Your task to perform on an android device: find snoozed emails in the gmail app Image 0: 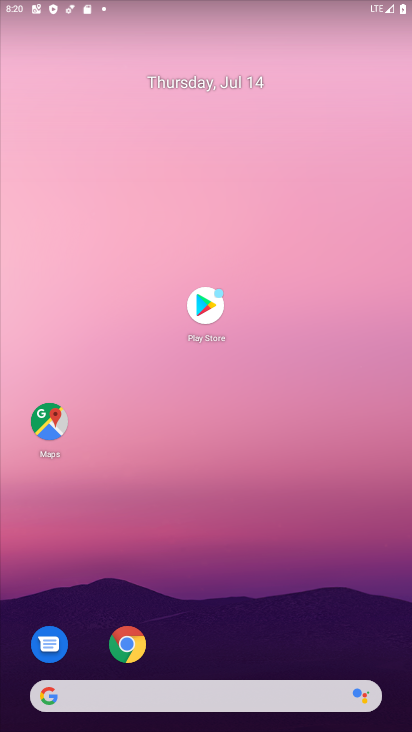
Step 0: click (303, 173)
Your task to perform on an android device: find snoozed emails in the gmail app Image 1: 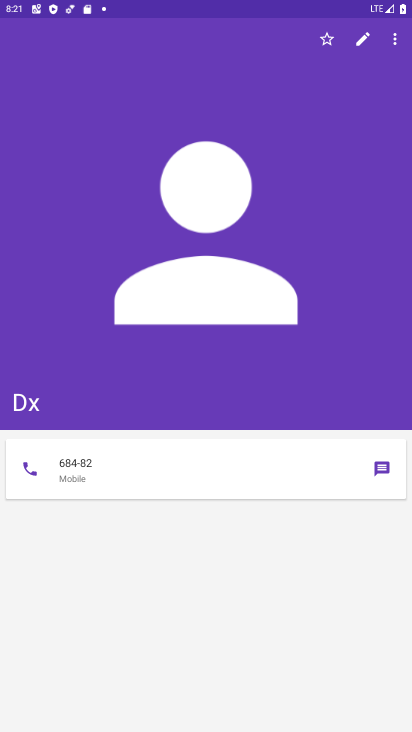
Step 1: press home button
Your task to perform on an android device: find snoozed emails in the gmail app Image 2: 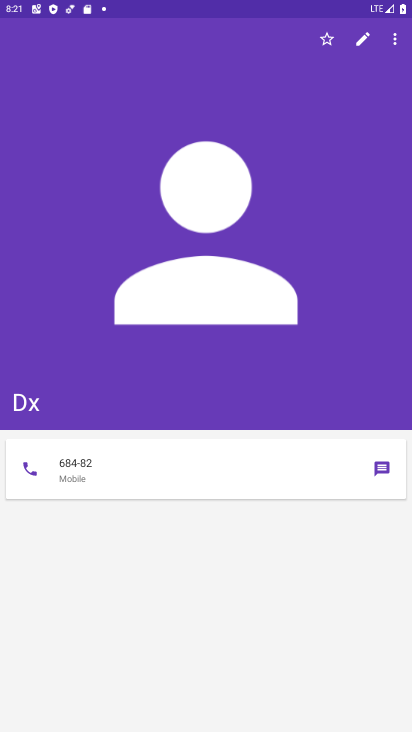
Step 2: press home button
Your task to perform on an android device: find snoozed emails in the gmail app Image 3: 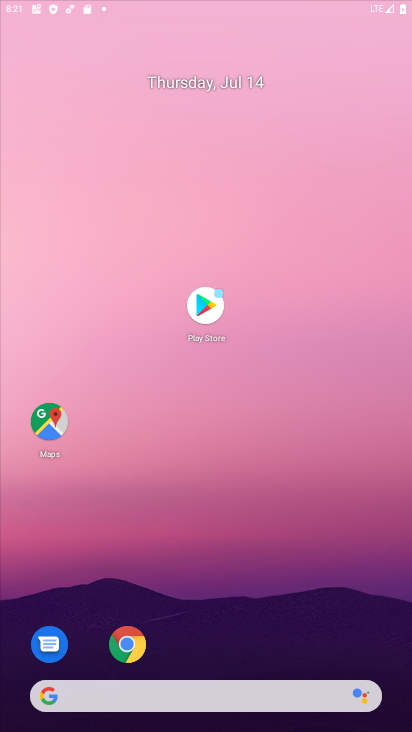
Step 3: press home button
Your task to perform on an android device: find snoozed emails in the gmail app Image 4: 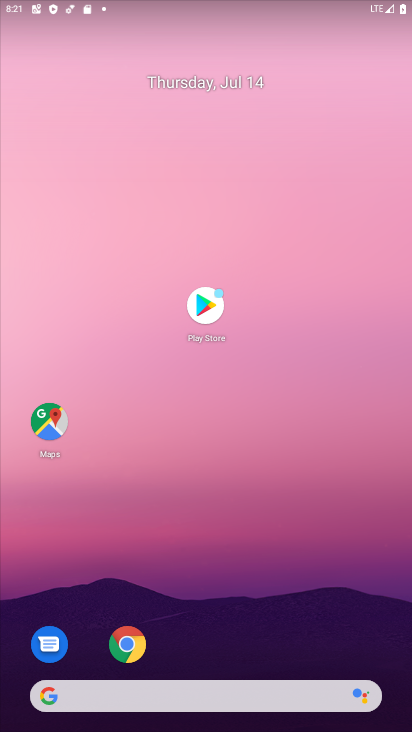
Step 4: click (221, 598)
Your task to perform on an android device: find snoozed emails in the gmail app Image 5: 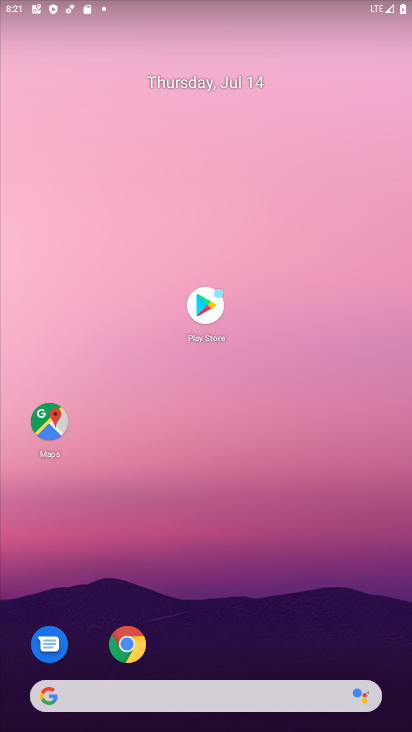
Step 5: drag from (202, 621) to (143, 27)
Your task to perform on an android device: find snoozed emails in the gmail app Image 6: 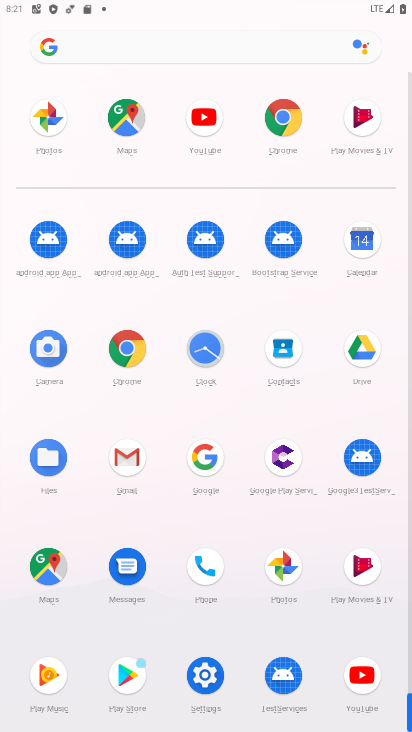
Step 6: click (126, 460)
Your task to perform on an android device: find snoozed emails in the gmail app Image 7: 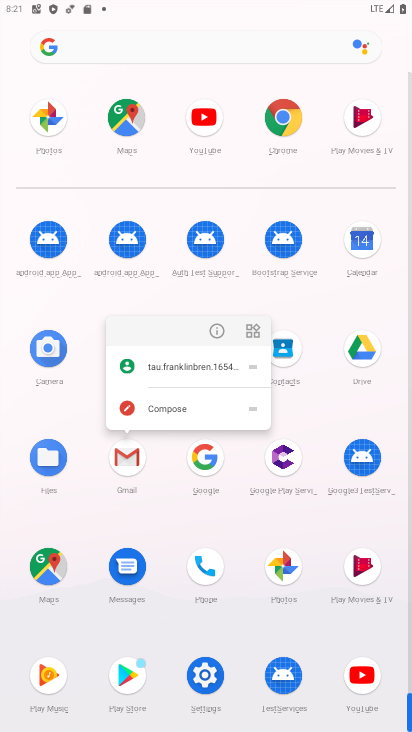
Step 7: click (216, 321)
Your task to perform on an android device: find snoozed emails in the gmail app Image 8: 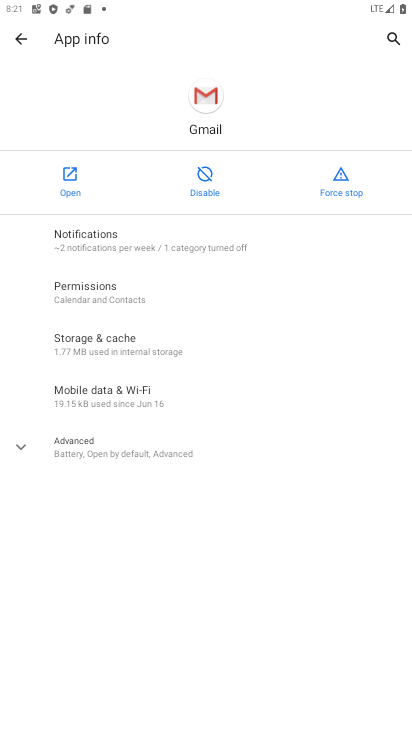
Step 8: click (58, 190)
Your task to perform on an android device: find snoozed emails in the gmail app Image 9: 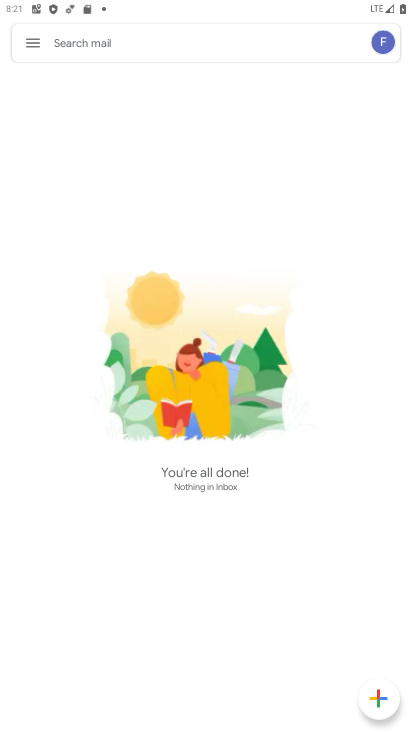
Step 9: drag from (213, 550) to (233, 215)
Your task to perform on an android device: find snoozed emails in the gmail app Image 10: 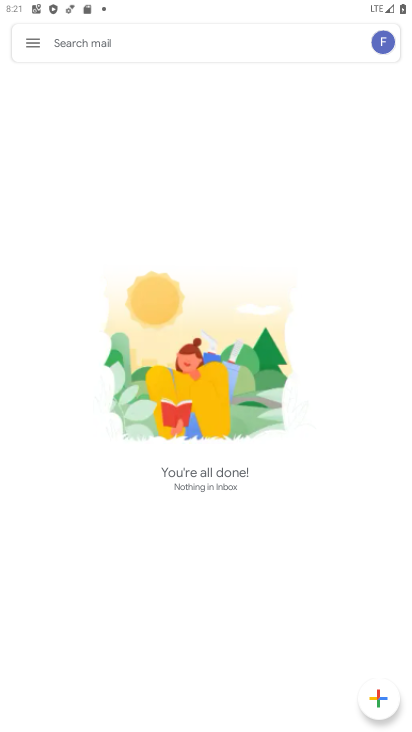
Step 10: click (20, 39)
Your task to perform on an android device: find snoozed emails in the gmail app Image 11: 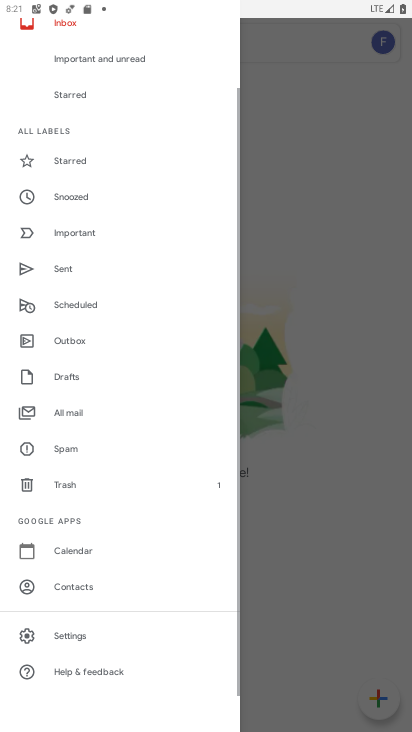
Step 11: click (42, 34)
Your task to perform on an android device: find snoozed emails in the gmail app Image 12: 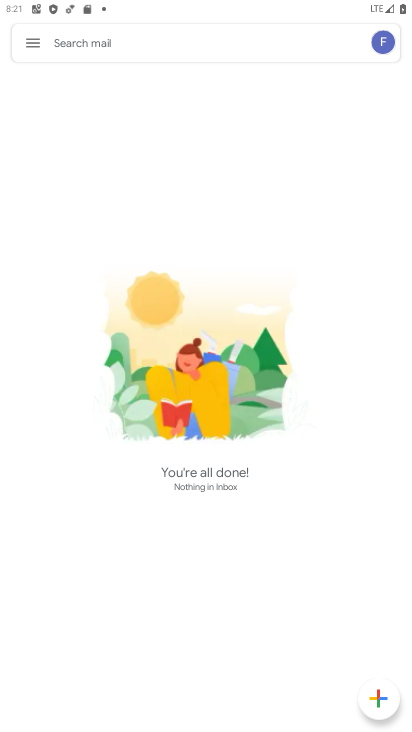
Step 12: click (42, 34)
Your task to perform on an android device: find snoozed emails in the gmail app Image 13: 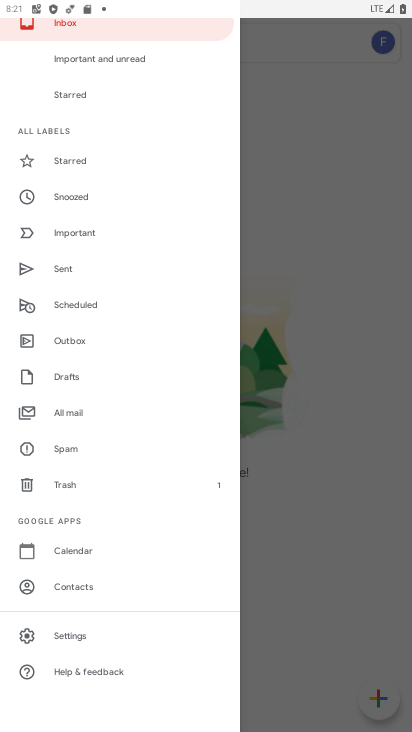
Step 13: click (71, 200)
Your task to perform on an android device: find snoozed emails in the gmail app Image 14: 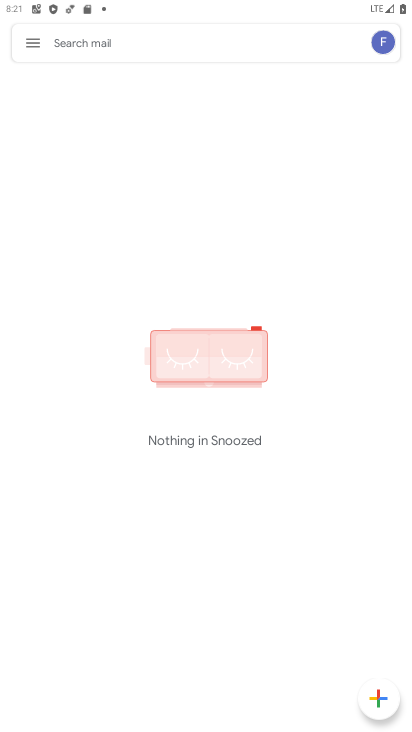
Step 14: task complete